Your task to perform on an android device: Empty the shopping cart on amazon. Search for razer huntsman on amazon, select the first entry, and add it to the cart. Image 0: 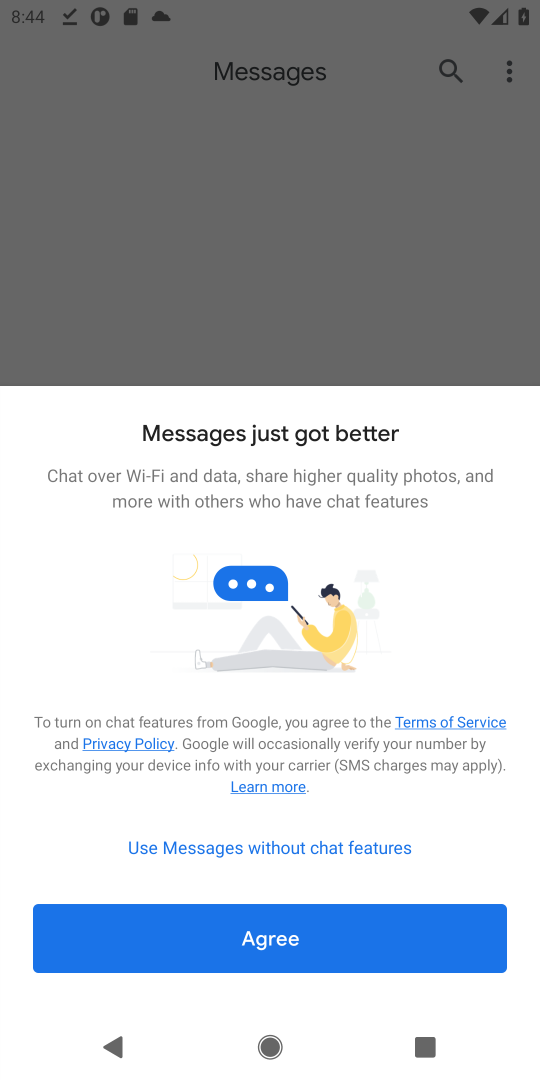
Step 0: press home button
Your task to perform on an android device: Empty the shopping cart on amazon. Search for razer huntsman on amazon, select the first entry, and add it to the cart. Image 1: 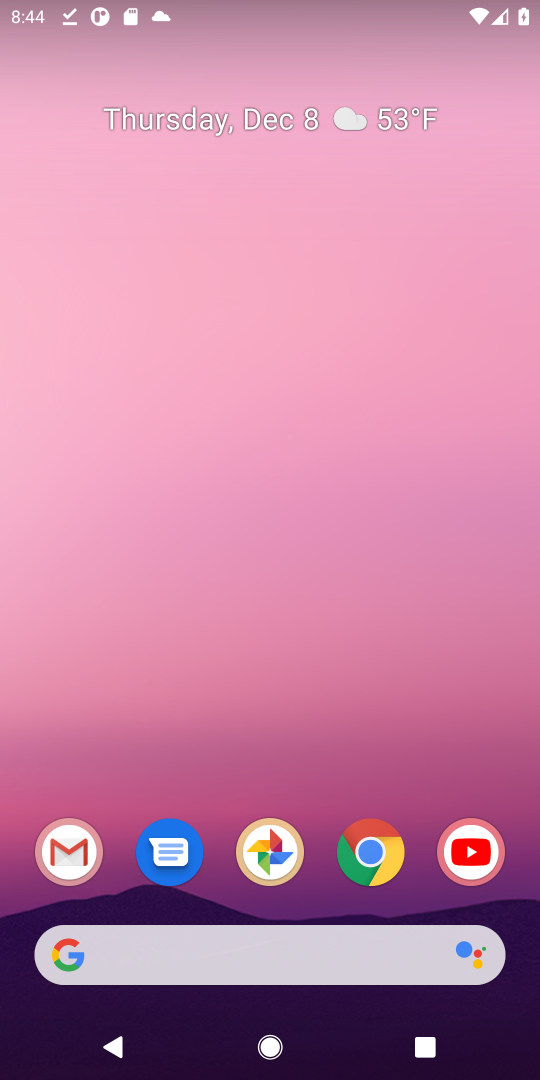
Step 1: click (306, 963)
Your task to perform on an android device: Empty the shopping cart on amazon. Search for razer huntsman on amazon, select the first entry, and add it to the cart. Image 2: 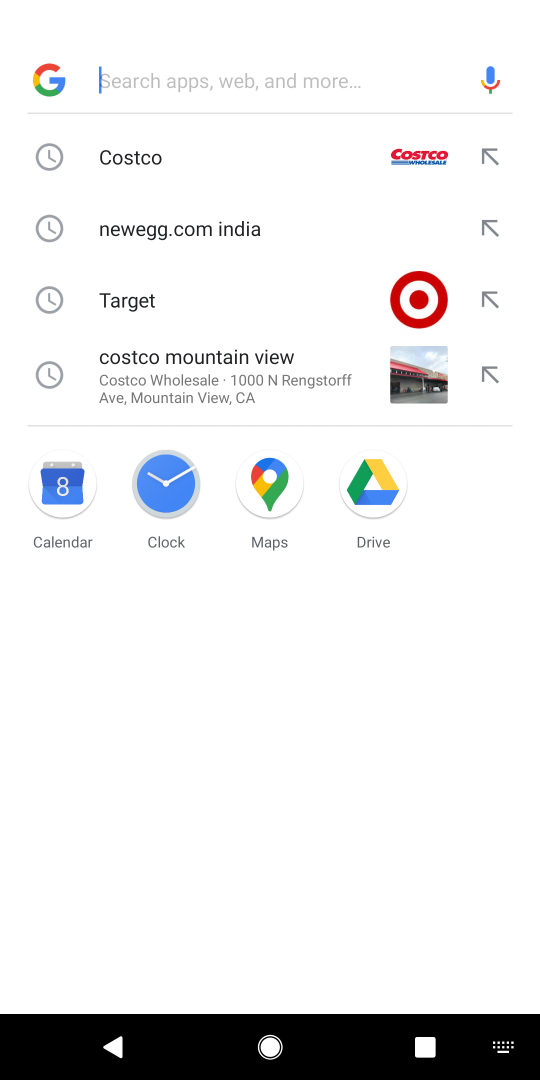
Step 2: type "amazon"
Your task to perform on an android device: Empty the shopping cart on amazon. Search for razer huntsman on amazon, select the first entry, and add it to the cart. Image 3: 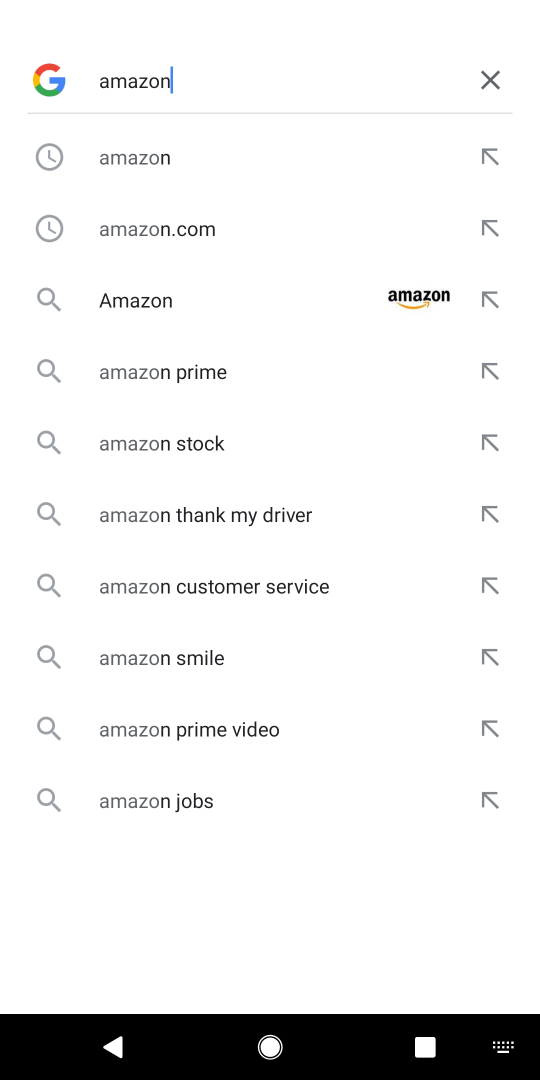
Step 3: click (123, 285)
Your task to perform on an android device: Empty the shopping cart on amazon. Search for razer huntsman on amazon, select the first entry, and add it to the cart. Image 4: 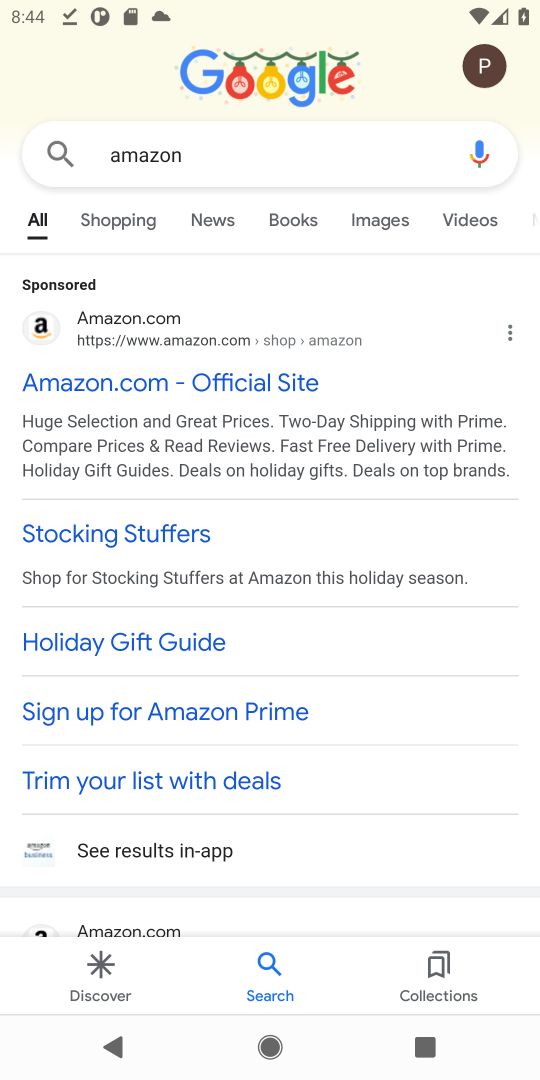
Step 4: click (102, 398)
Your task to perform on an android device: Empty the shopping cart on amazon. Search for razer huntsman on amazon, select the first entry, and add it to the cart. Image 5: 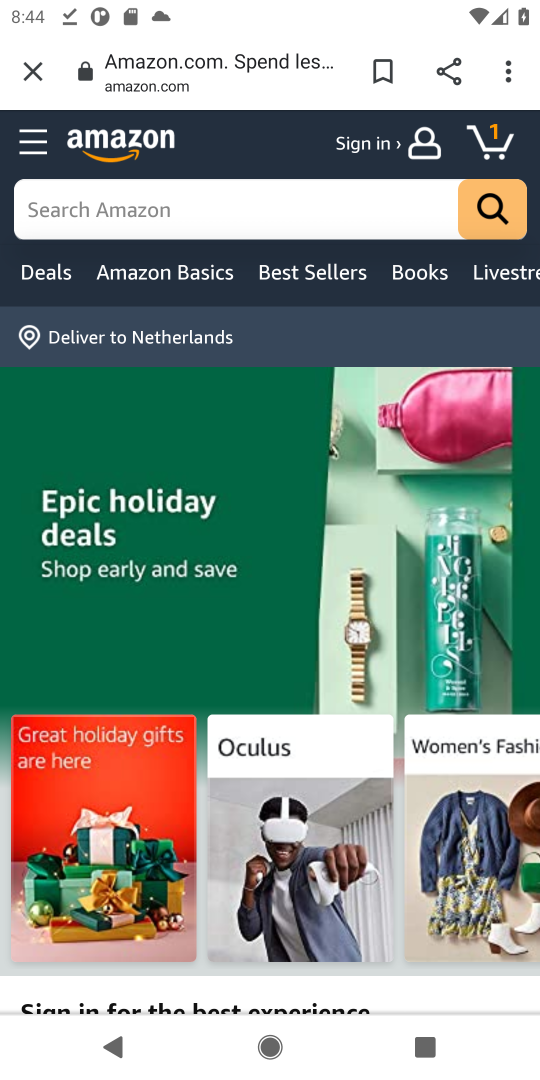
Step 5: click (248, 204)
Your task to perform on an android device: Empty the shopping cart on amazon. Search for razer huntsman on amazon, select the first entry, and add it to the cart. Image 6: 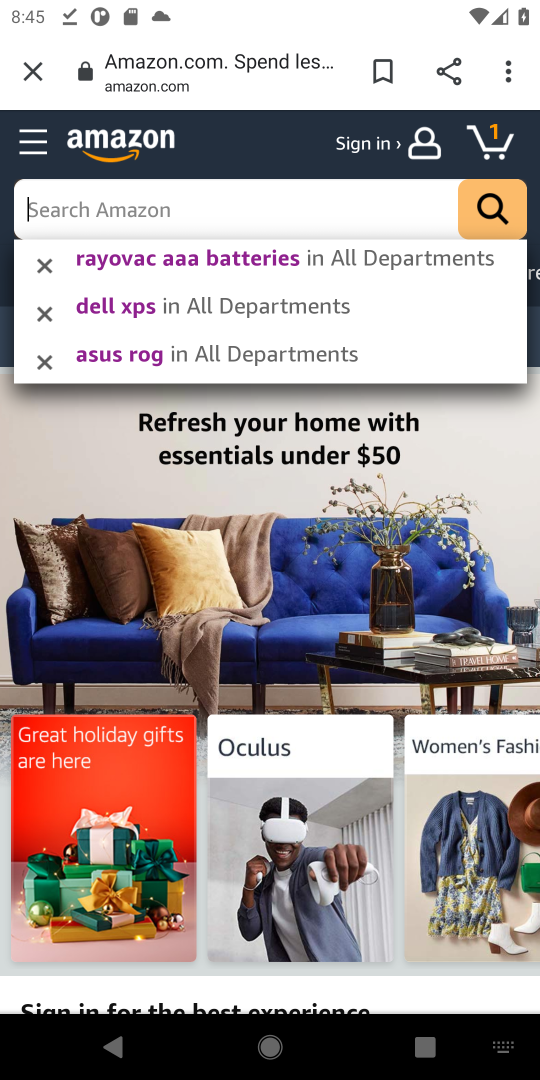
Step 6: type "razer huntsman"
Your task to perform on an android device: Empty the shopping cart on amazon. Search for razer huntsman on amazon, select the first entry, and add it to the cart. Image 7: 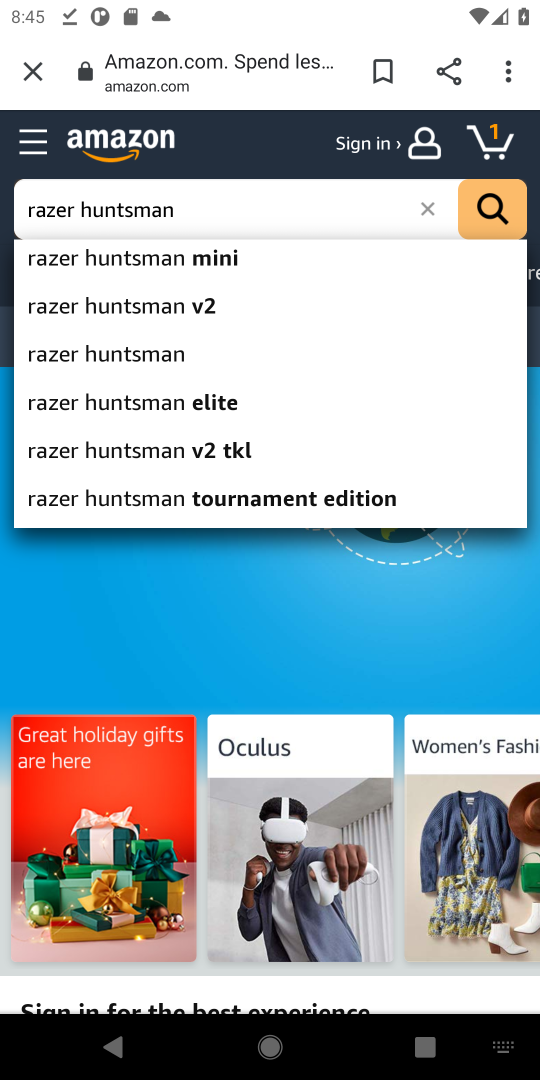
Step 7: click (484, 216)
Your task to perform on an android device: Empty the shopping cart on amazon. Search for razer huntsman on amazon, select the first entry, and add it to the cart. Image 8: 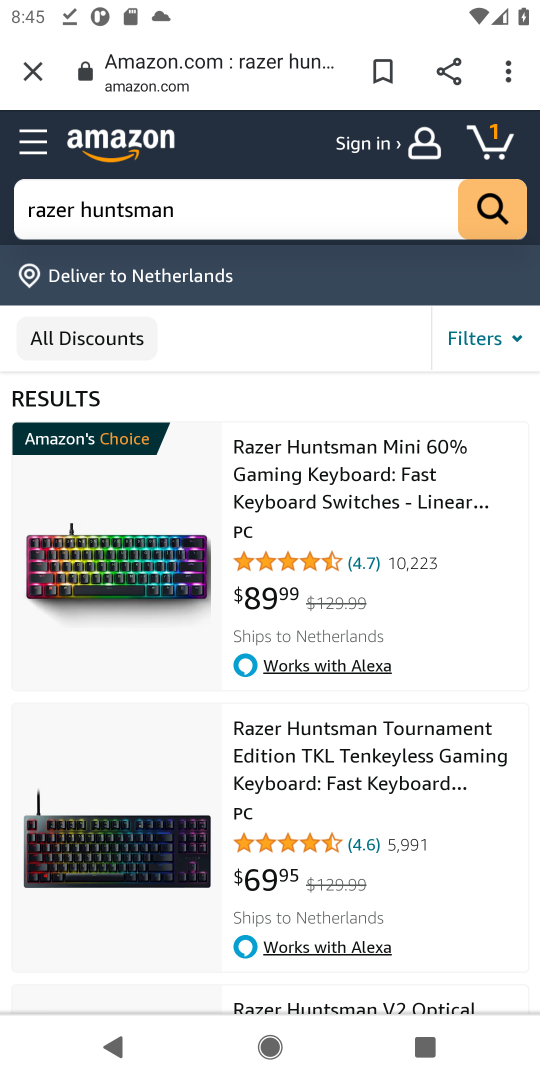
Step 8: click (325, 507)
Your task to perform on an android device: Empty the shopping cart on amazon. Search for razer huntsman on amazon, select the first entry, and add it to the cart. Image 9: 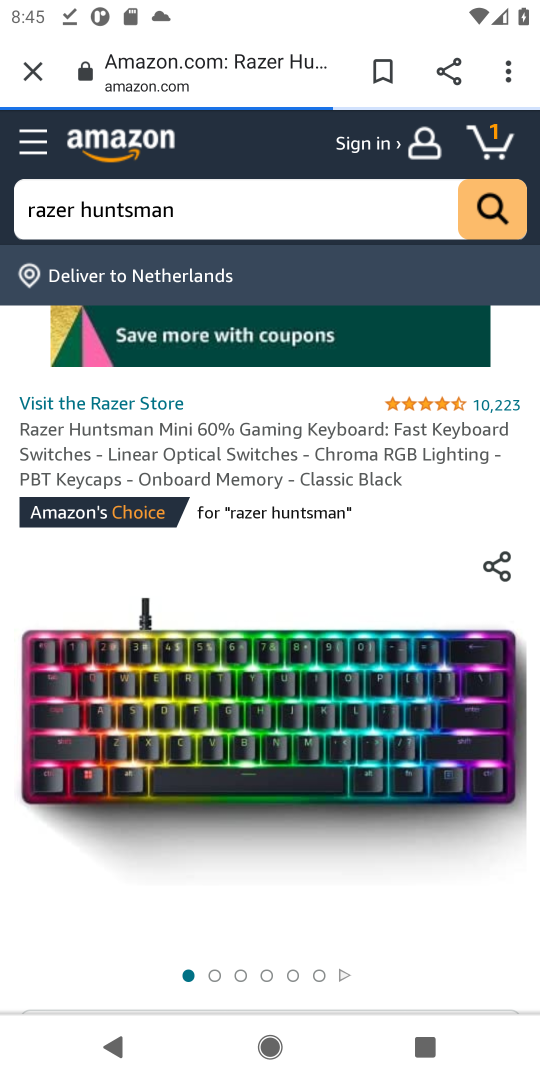
Step 9: drag from (293, 893) to (358, 247)
Your task to perform on an android device: Empty the shopping cart on amazon. Search for razer huntsman on amazon, select the first entry, and add it to the cart. Image 10: 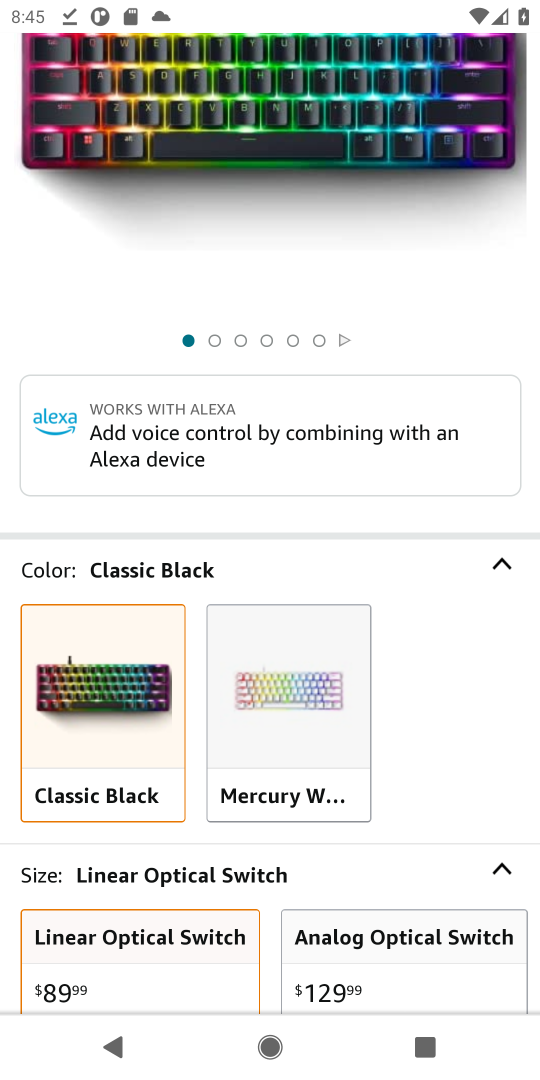
Step 10: drag from (396, 828) to (430, 246)
Your task to perform on an android device: Empty the shopping cart on amazon. Search for razer huntsman on amazon, select the first entry, and add it to the cart. Image 11: 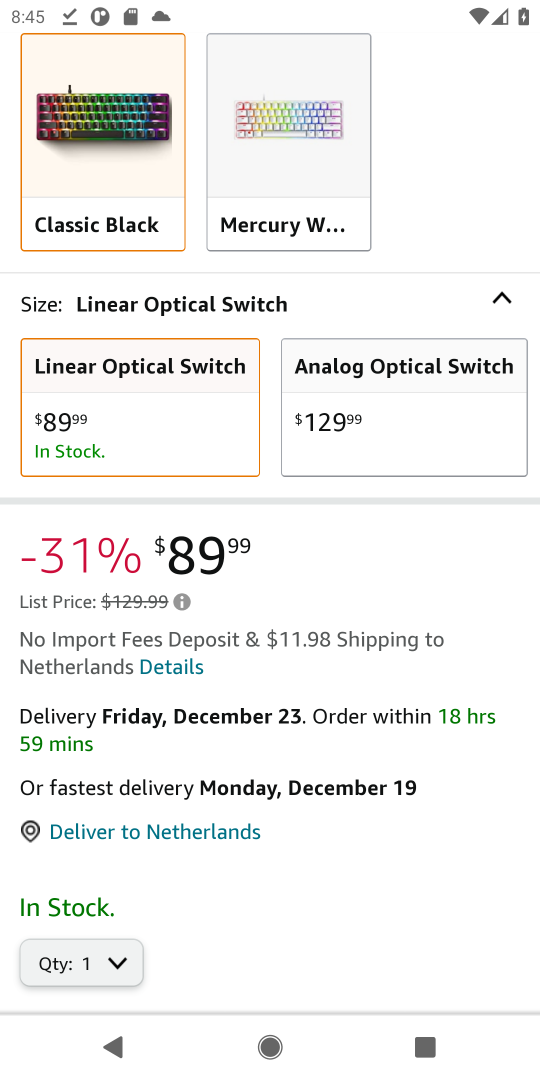
Step 11: drag from (283, 889) to (365, 318)
Your task to perform on an android device: Empty the shopping cart on amazon. Search for razer huntsman on amazon, select the first entry, and add it to the cart. Image 12: 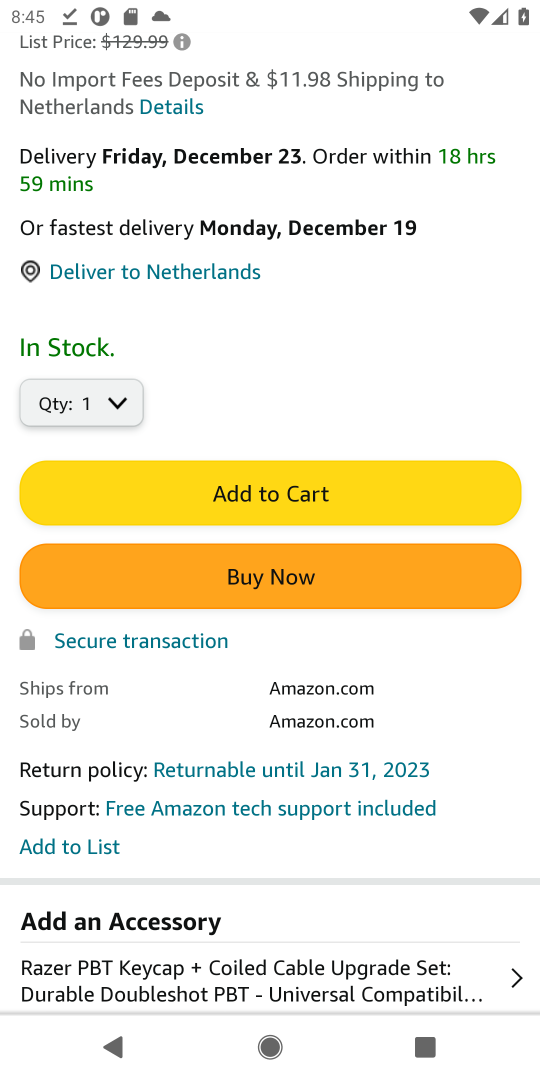
Step 12: click (330, 507)
Your task to perform on an android device: Empty the shopping cart on amazon. Search for razer huntsman on amazon, select the first entry, and add it to the cart. Image 13: 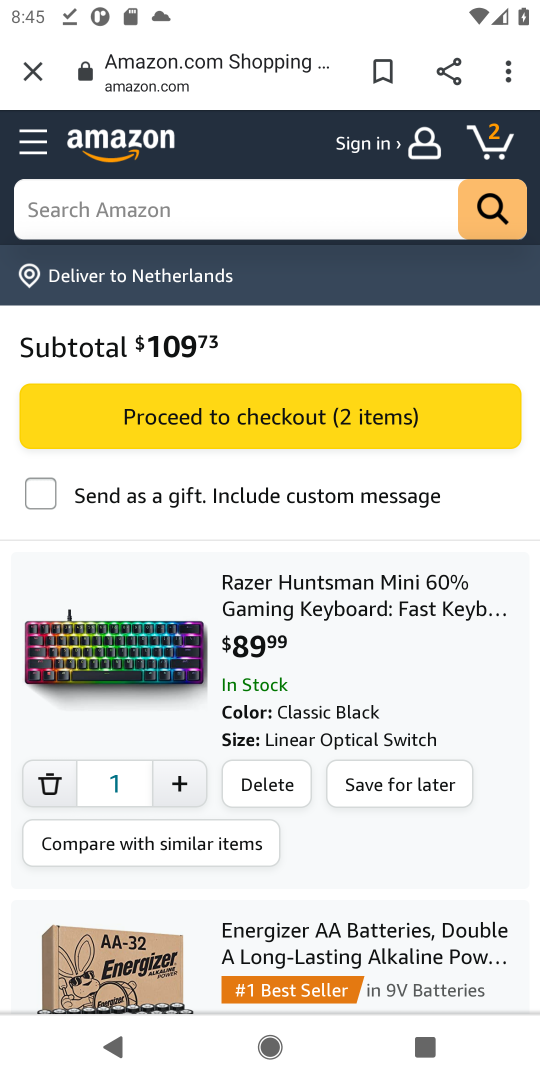
Step 13: task complete